Your task to perform on an android device: check data usage Image 0: 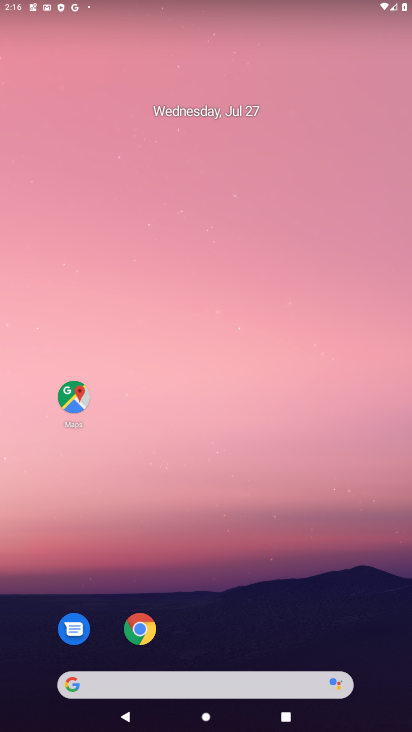
Step 0: drag from (266, 609) to (212, 1)
Your task to perform on an android device: check data usage Image 1: 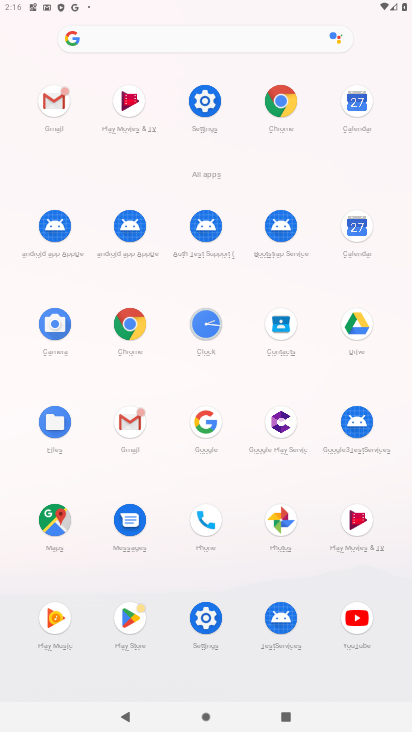
Step 1: click (205, 91)
Your task to perform on an android device: check data usage Image 2: 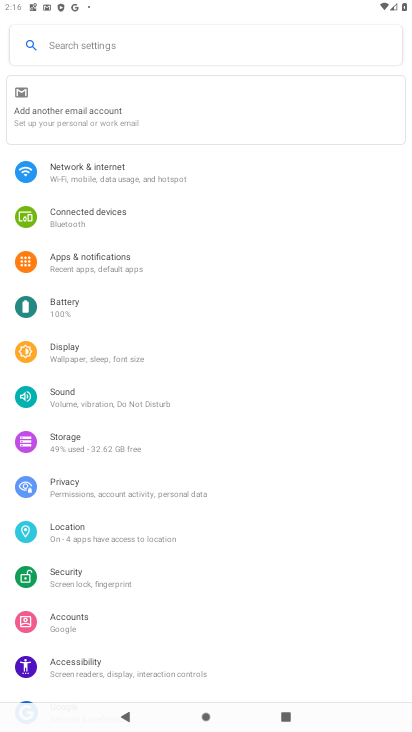
Step 2: click (205, 90)
Your task to perform on an android device: check data usage Image 3: 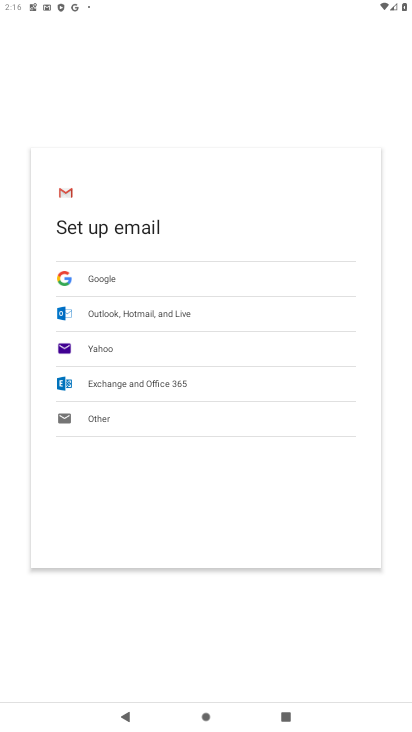
Step 3: click (195, 174)
Your task to perform on an android device: check data usage Image 4: 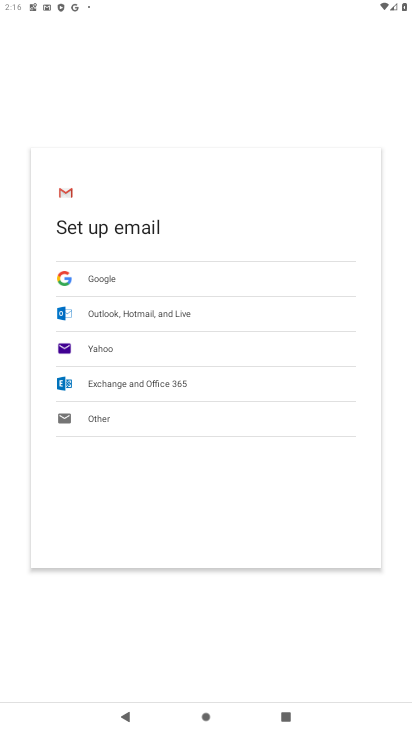
Step 4: task complete